Your task to perform on an android device: add a contact Image 0: 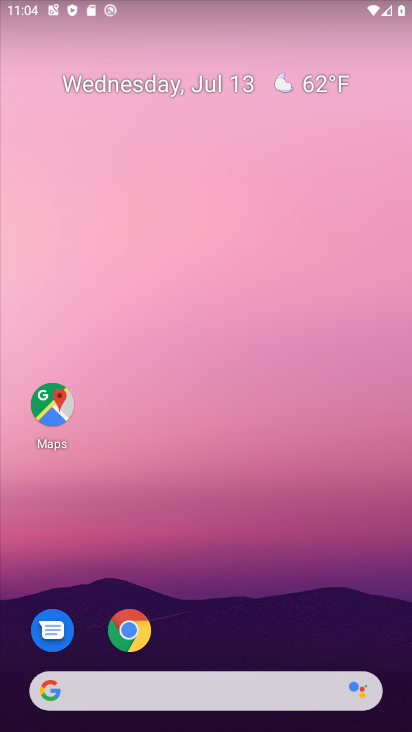
Step 0: drag from (332, 564) to (337, 0)
Your task to perform on an android device: add a contact Image 1: 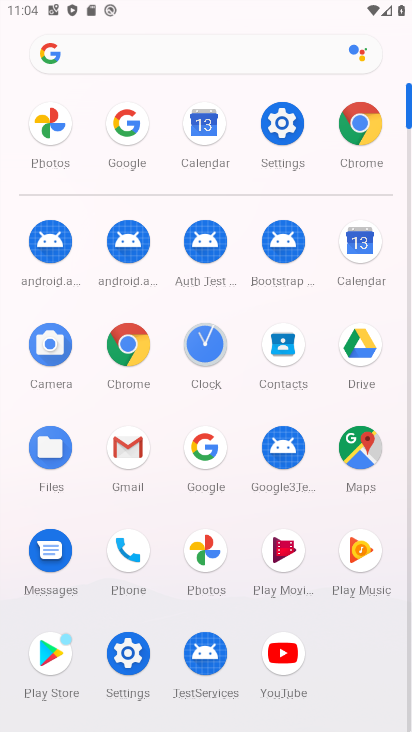
Step 1: click (124, 545)
Your task to perform on an android device: add a contact Image 2: 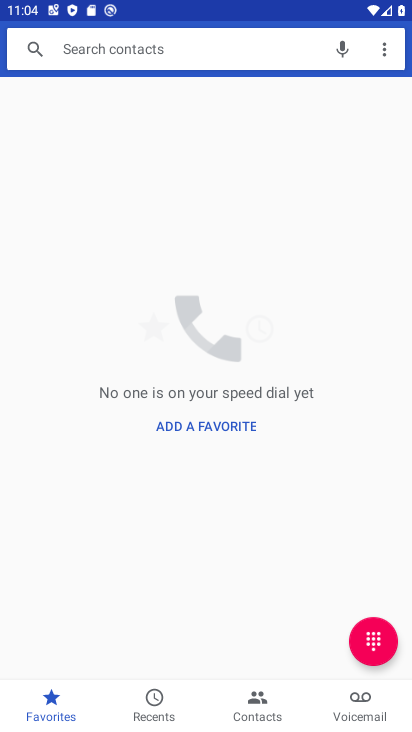
Step 2: click (266, 701)
Your task to perform on an android device: add a contact Image 3: 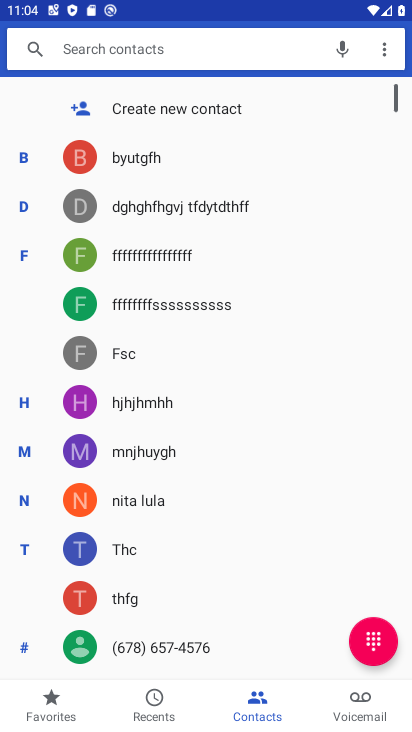
Step 3: click (169, 107)
Your task to perform on an android device: add a contact Image 4: 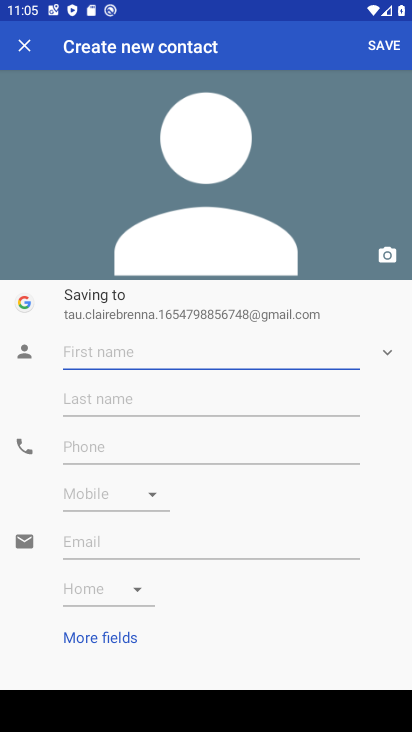
Step 4: type "ghhjjj"
Your task to perform on an android device: add a contact Image 5: 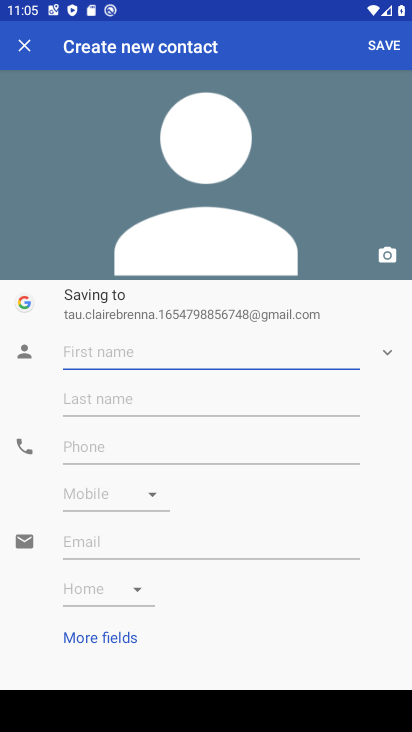
Step 5: click (196, 447)
Your task to perform on an android device: add a contact Image 6: 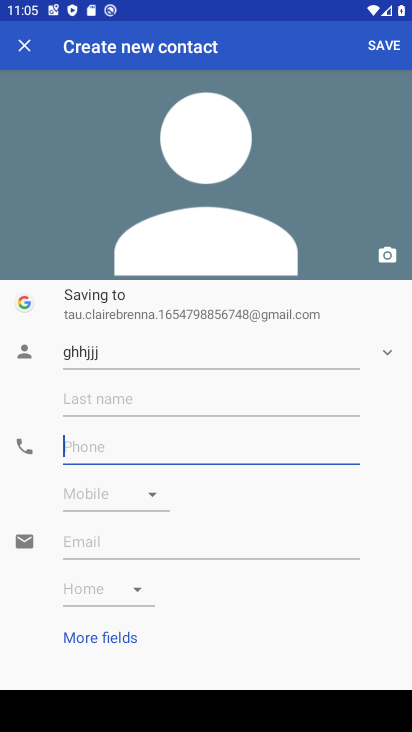
Step 6: type "6464646464"
Your task to perform on an android device: add a contact Image 7: 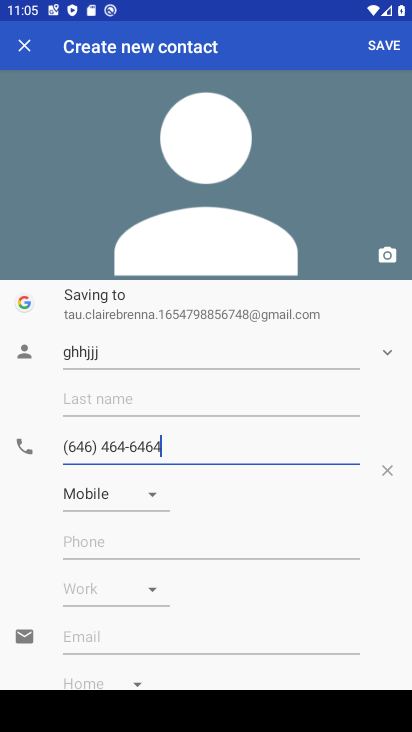
Step 7: click (363, 43)
Your task to perform on an android device: add a contact Image 8: 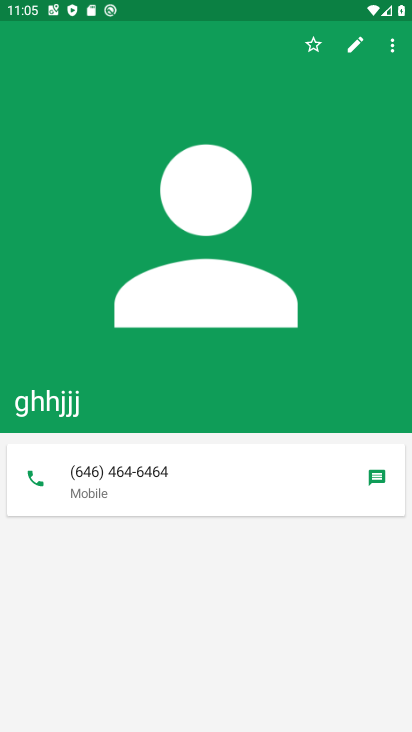
Step 8: task complete